Your task to perform on an android device: create a new album in the google photos Image 0: 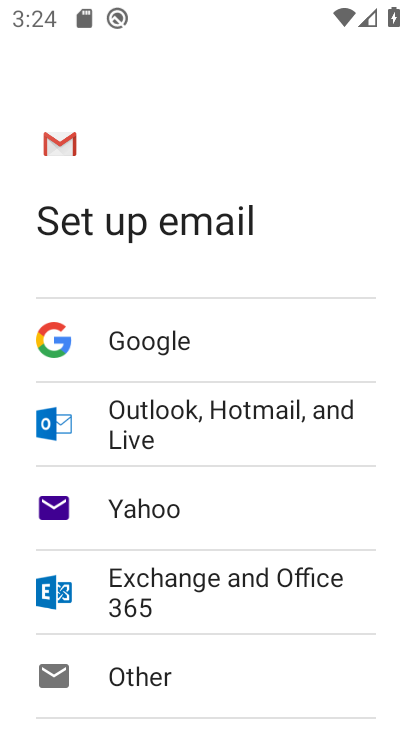
Step 0: press home button
Your task to perform on an android device: create a new album in the google photos Image 1: 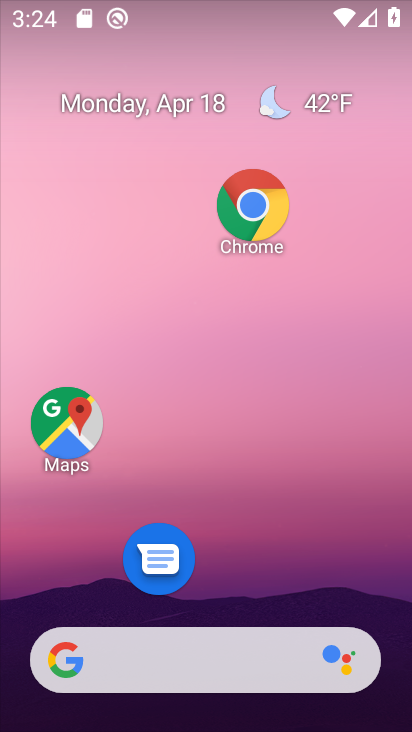
Step 1: drag from (183, 372) to (233, 114)
Your task to perform on an android device: create a new album in the google photos Image 2: 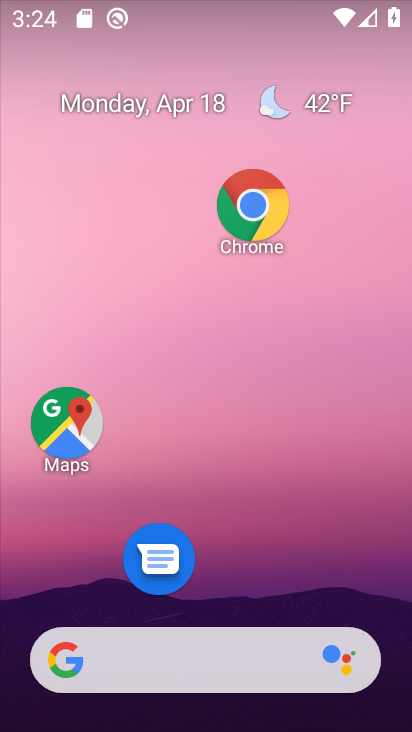
Step 2: drag from (234, 597) to (254, 141)
Your task to perform on an android device: create a new album in the google photos Image 3: 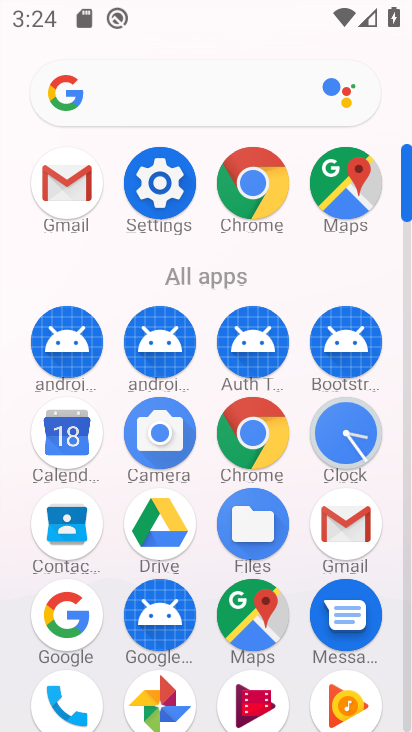
Step 3: drag from (238, 682) to (316, 224)
Your task to perform on an android device: create a new album in the google photos Image 4: 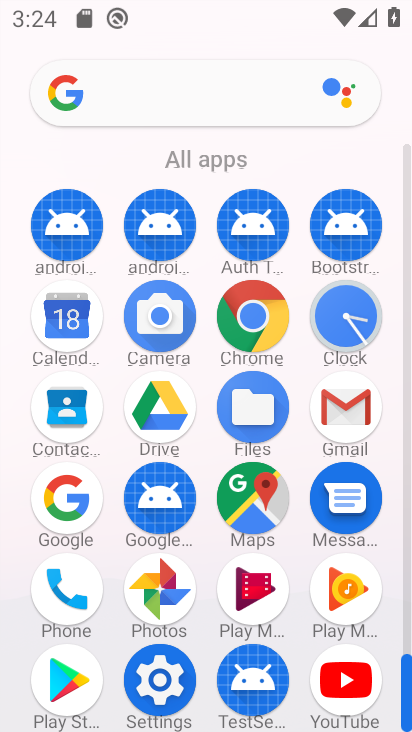
Step 4: click (159, 626)
Your task to perform on an android device: create a new album in the google photos Image 5: 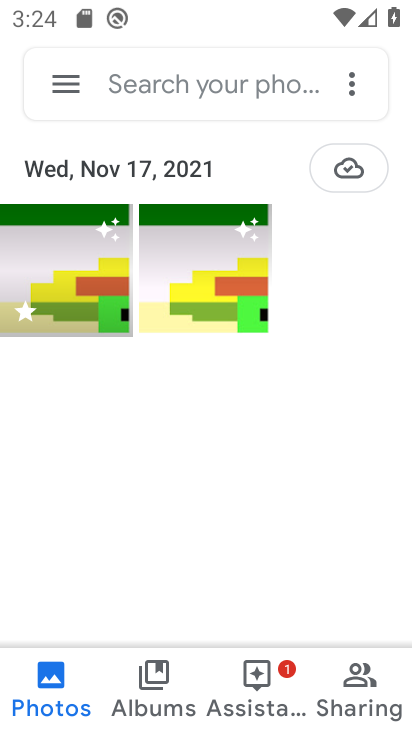
Step 5: click (155, 709)
Your task to perform on an android device: create a new album in the google photos Image 6: 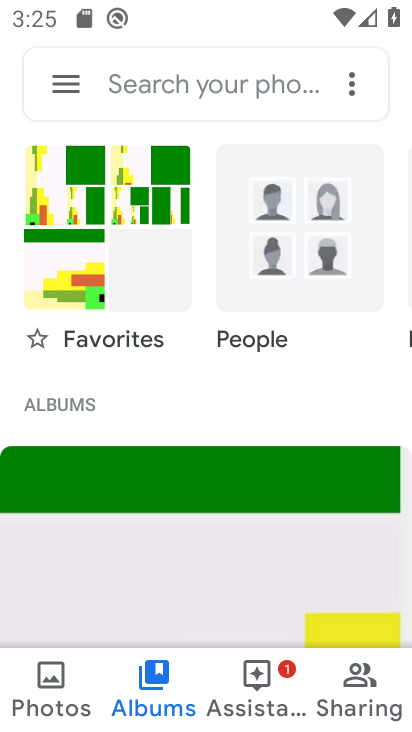
Step 6: click (49, 242)
Your task to perform on an android device: create a new album in the google photos Image 7: 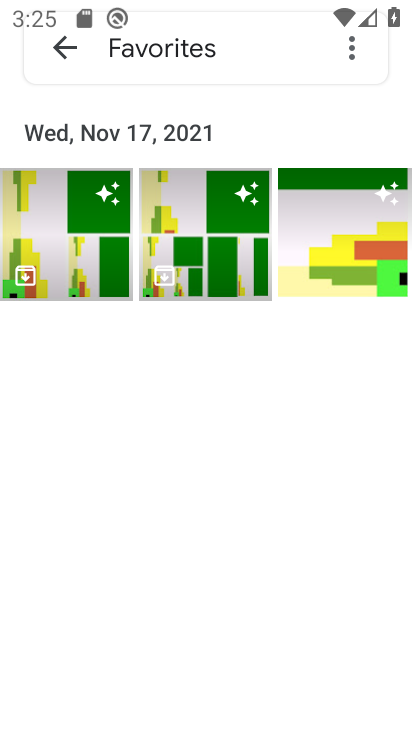
Step 7: click (49, 232)
Your task to perform on an android device: create a new album in the google photos Image 8: 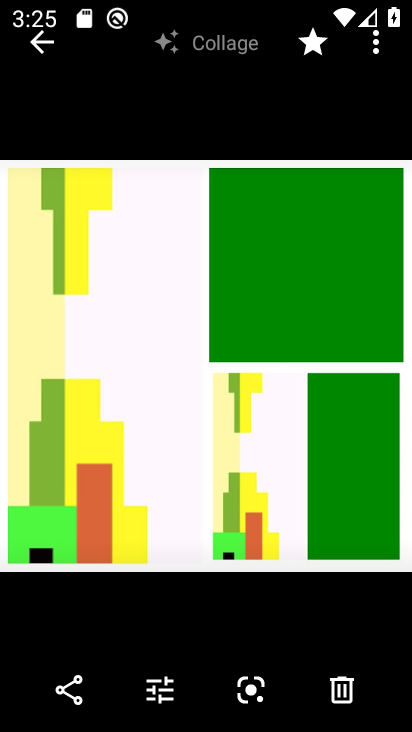
Step 8: click (369, 43)
Your task to perform on an android device: create a new album in the google photos Image 9: 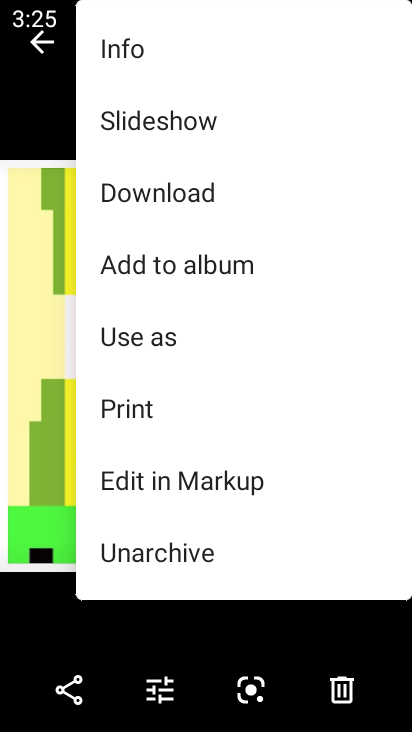
Step 9: click (169, 264)
Your task to perform on an android device: create a new album in the google photos Image 10: 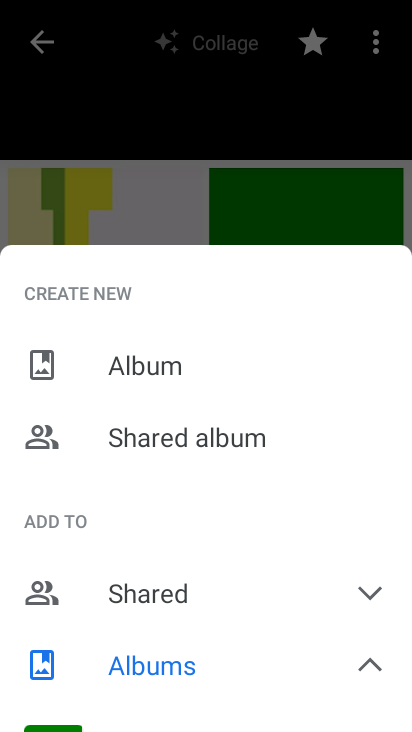
Step 10: click (147, 368)
Your task to perform on an android device: create a new album in the google photos Image 11: 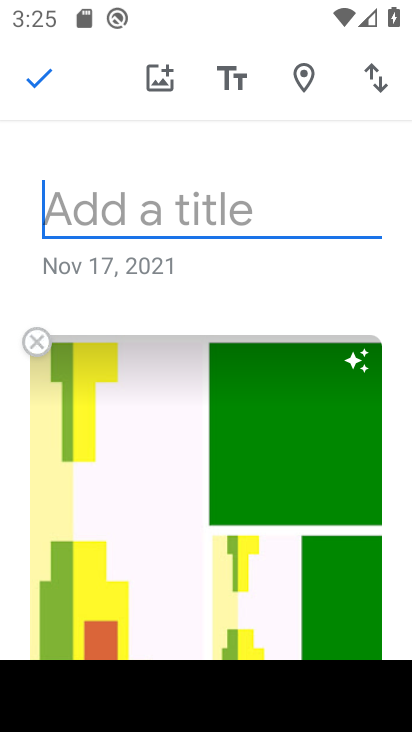
Step 11: type "nn"
Your task to perform on an android device: create a new album in the google photos Image 12: 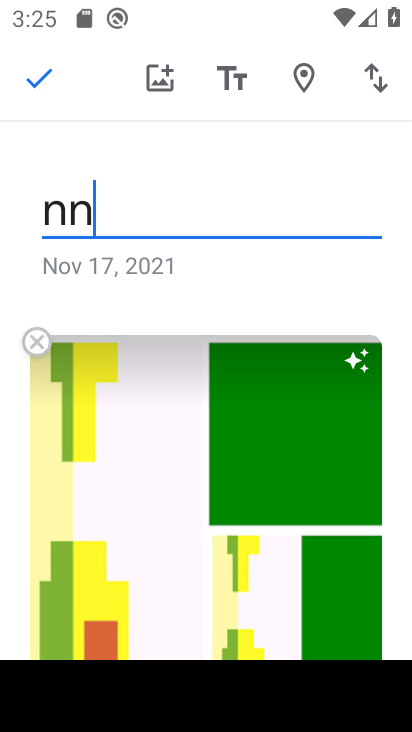
Step 12: click (376, 74)
Your task to perform on an android device: create a new album in the google photos Image 13: 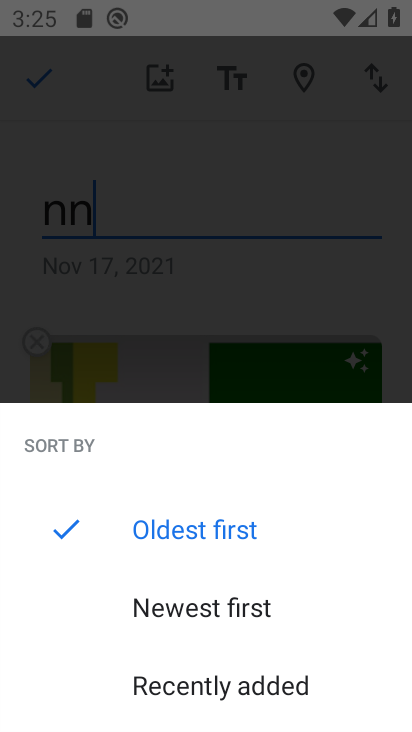
Step 13: click (209, 534)
Your task to perform on an android device: create a new album in the google photos Image 14: 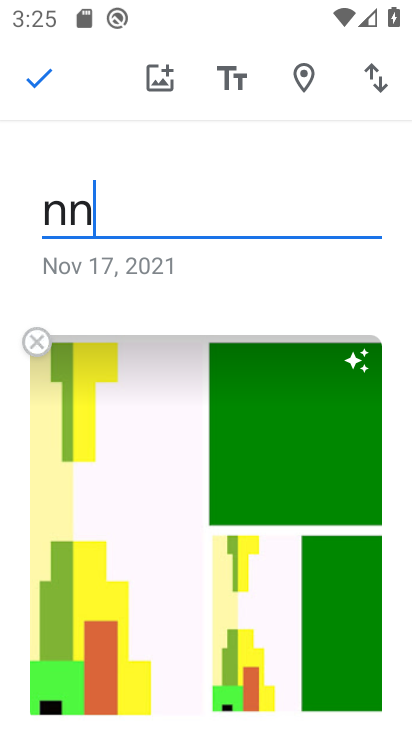
Step 14: click (112, 388)
Your task to perform on an android device: create a new album in the google photos Image 15: 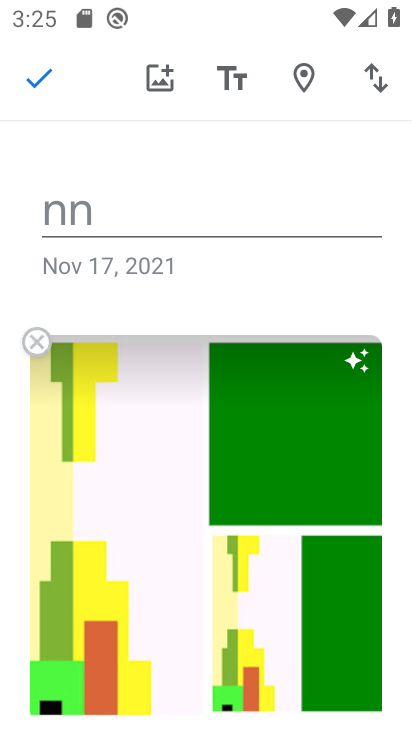
Step 15: drag from (152, 495) to (215, 249)
Your task to perform on an android device: create a new album in the google photos Image 16: 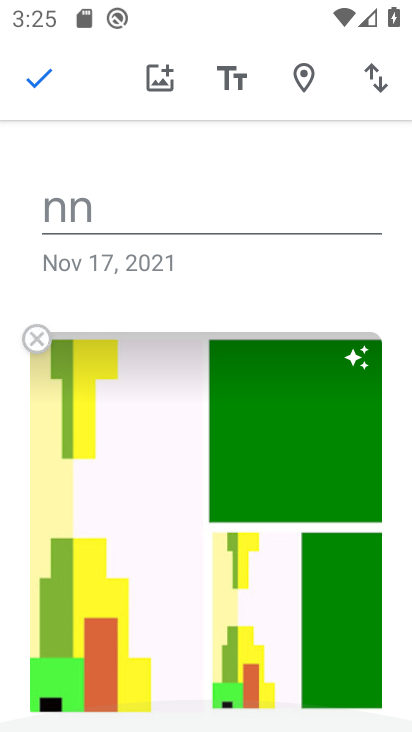
Step 16: drag from (166, 561) to (256, 272)
Your task to perform on an android device: create a new album in the google photos Image 17: 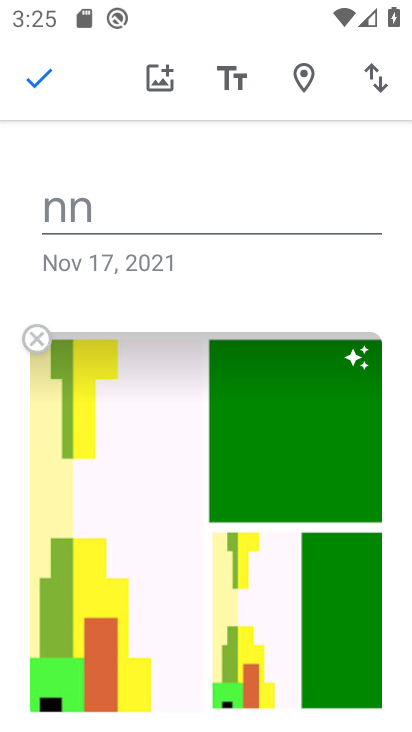
Step 17: click (355, 362)
Your task to perform on an android device: create a new album in the google photos Image 18: 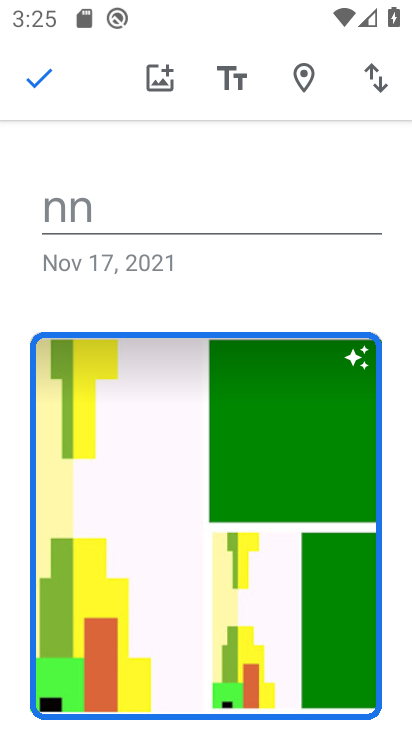
Step 18: drag from (194, 507) to (210, 335)
Your task to perform on an android device: create a new album in the google photos Image 19: 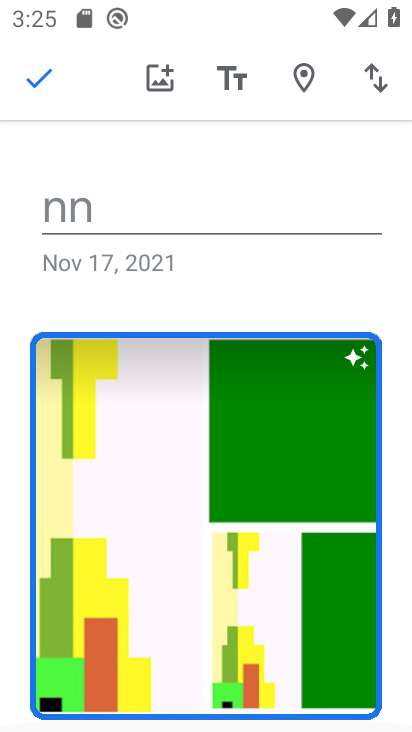
Step 19: click (163, 84)
Your task to perform on an android device: create a new album in the google photos Image 20: 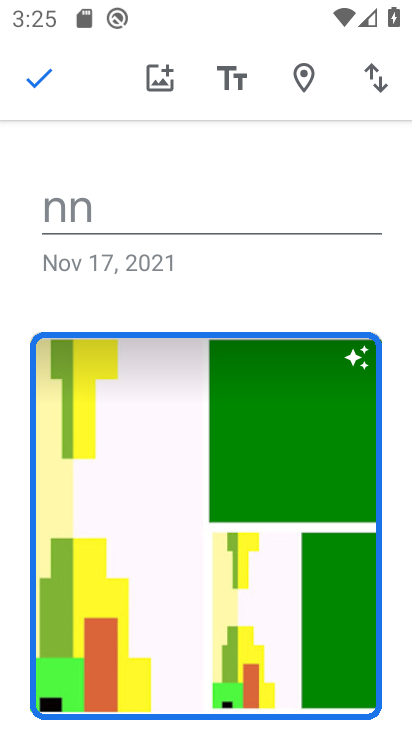
Step 20: click (211, 407)
Your task to perform on an android device: create a new album in the google photos Image 21: 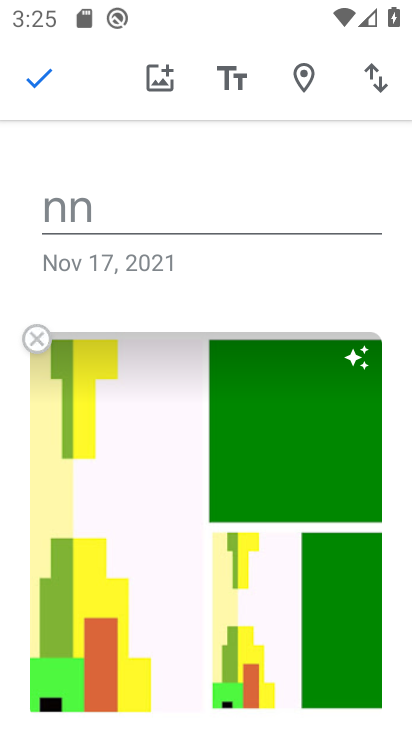
Step 21: click (45, 75)
Your task to perform on an android device: create a new album in the google photos Image 22: 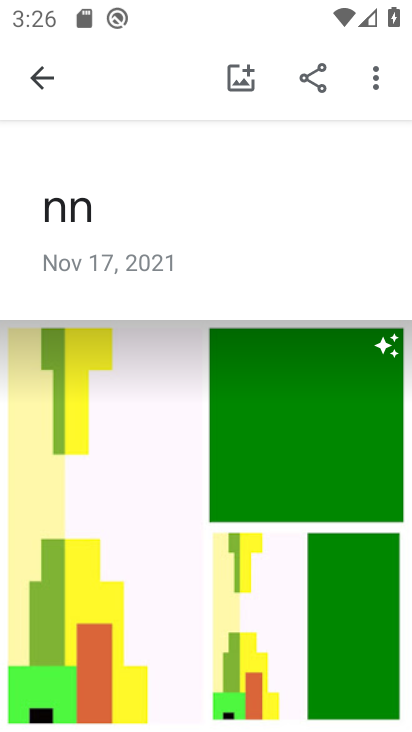
Step 22: task complete